Your task to perform on an android device: change timer sound Image 0: 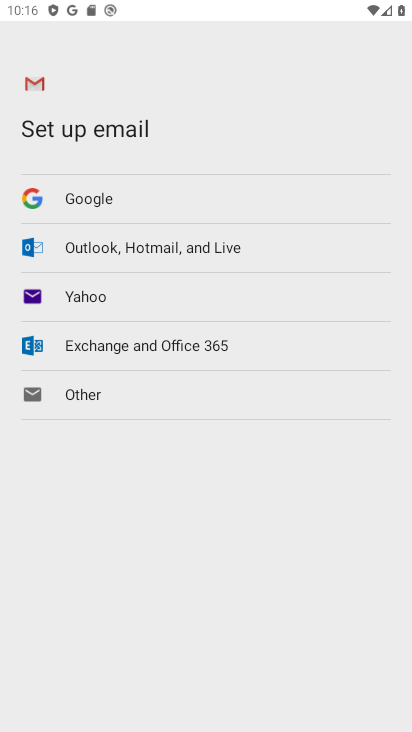
Step 0: press home button
Your task to perform on an android device: change timer sound Image 1: 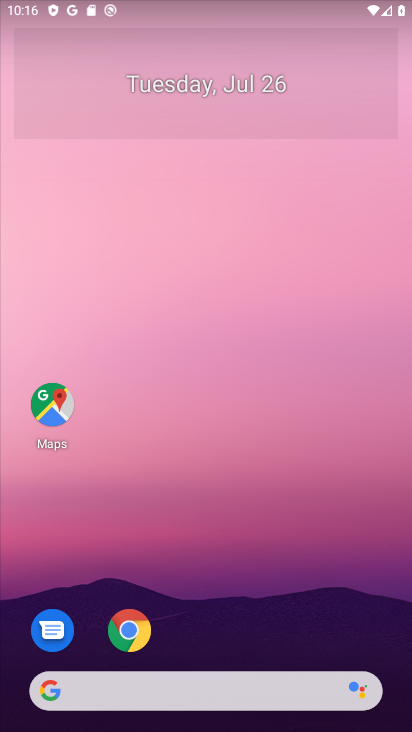
Step 1: drag from (281, 600) to (302, 6)
Your task to perform on an android device: change timer sound Image 2: 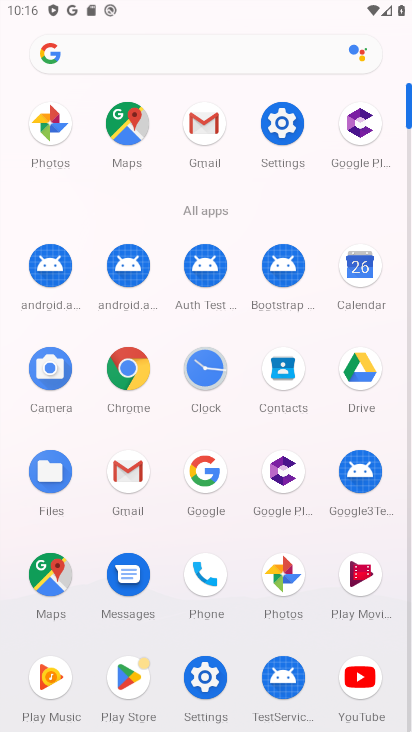
Step 2: click (284, 161)
Your task to perform on an android device: change timer sound Image 3: 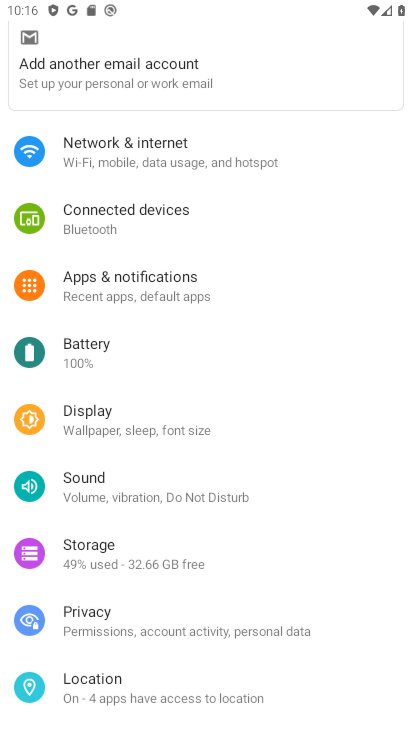
Step 3: click (285, 142)
Your task to perform on an android device: change timer sound Image 4: 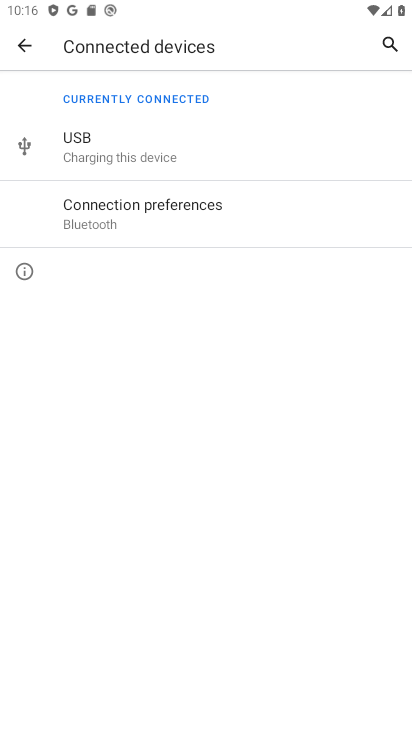
Step 4: click (30, 46)
Your task to perform on an android device: change timer sound Image 5: 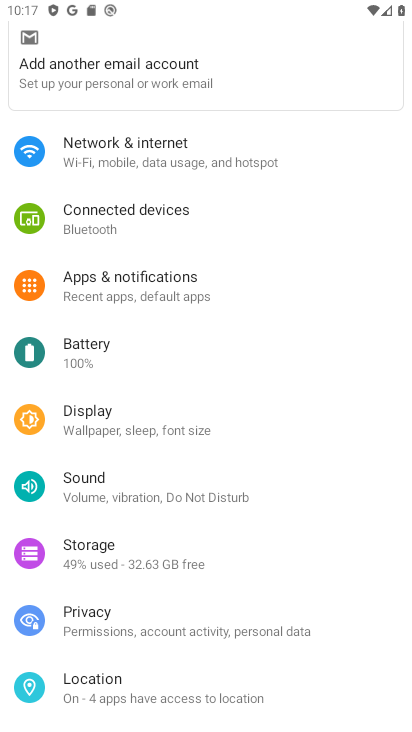
Step 5: click (101, 488)
Your task to perform on an android device: change timer sound Image 6: 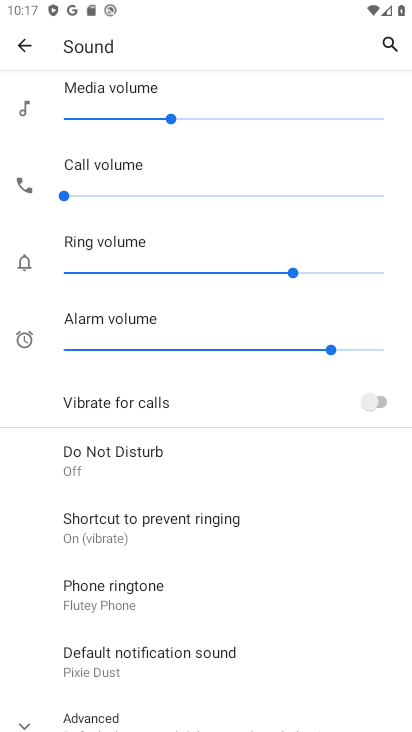
Step 6: task complete